Your task to perform on an android device: turn off notifications settings in the gmail app Image 0: 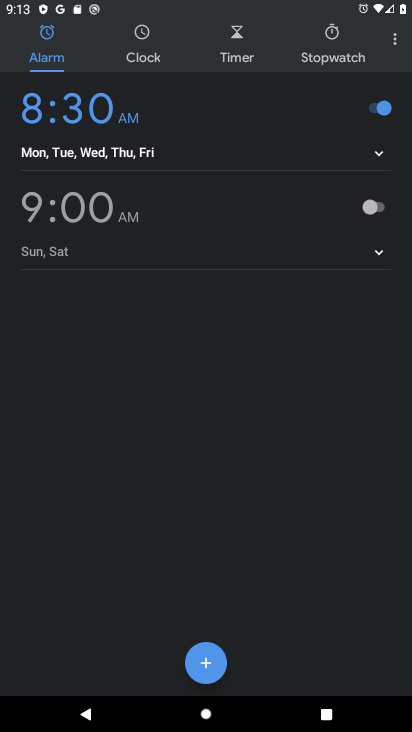
Step 0: press home button
Your task to perform on an android device: turn off notifications settings in the gmail app Image 1: 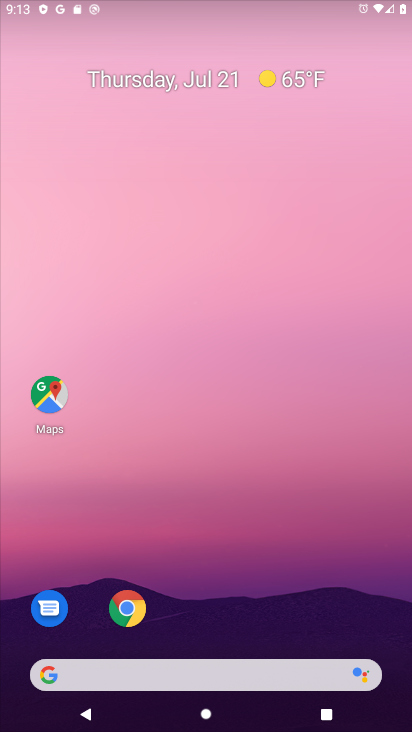
Step 1: drag from (263, 485) to (317, 114)
Your task to perform on an android device: turn off notifications settings in the gmail app Image 2: 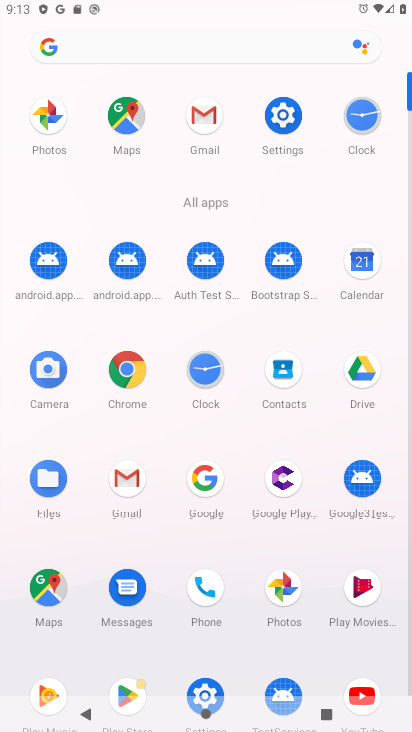
Step 2: click (204, 121)
Your task to perform on an android device: turn off notifications settings in the gmail app Image 3: 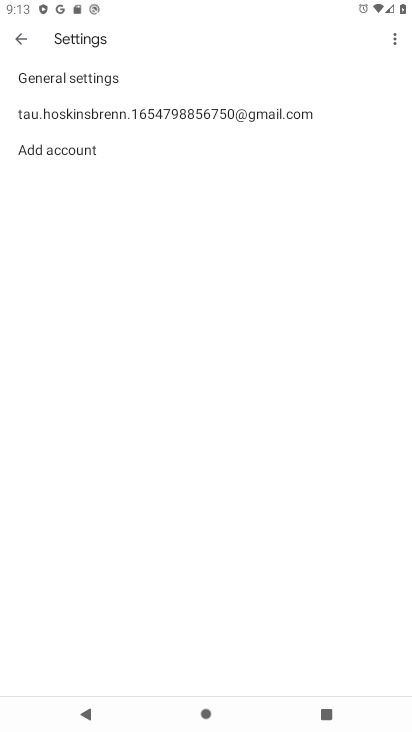
Step 3: click (20, 45)
Your task to perform on an android device: turn off notifications settings in the gmail app Image 4: 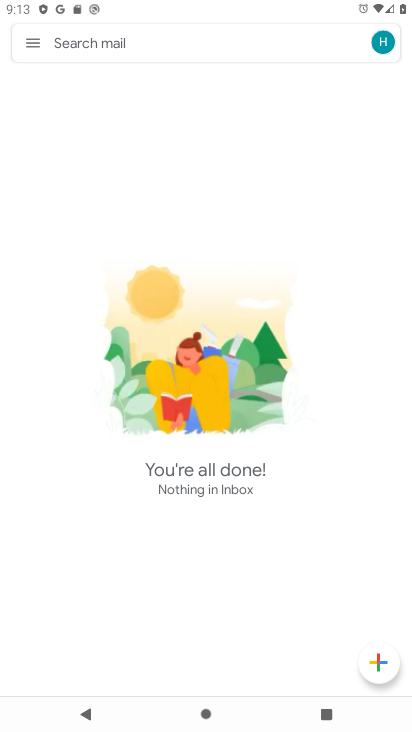
Step 4: task complete